Your task to perform on an android device: Go to Wikipedia Image 0: 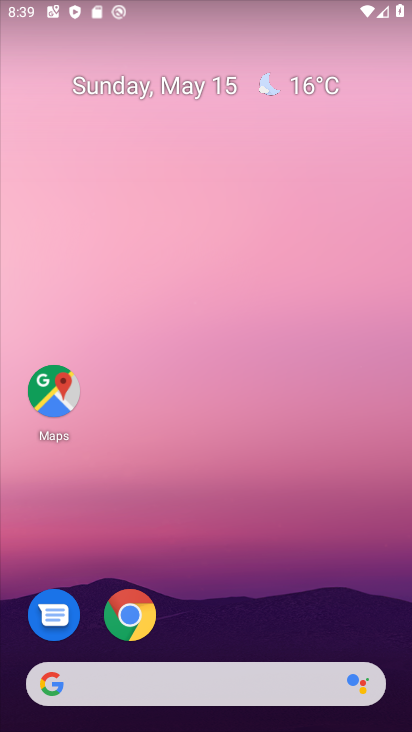
Step 0: click (137, 606)
Your task to perform on an android device: Go to Wikipedia Image 1: 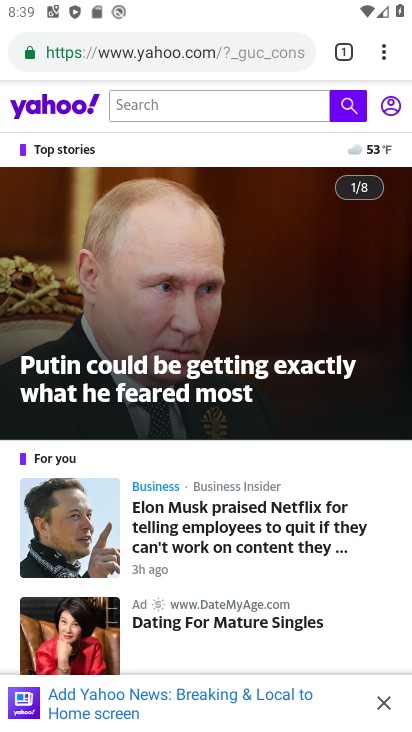
Step 1: click (351, 53)
Your task to perform on an android device: Go to Wikipedia Image 2: 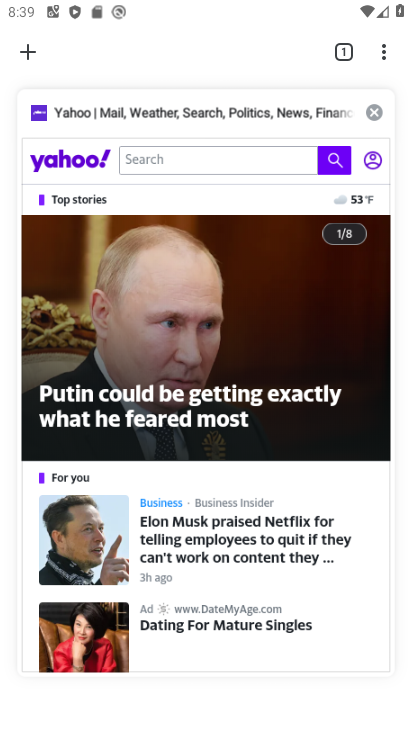
Step 2: click (369, 106)
Your task to perform on an android device: Go to Wikipedia Image 3: 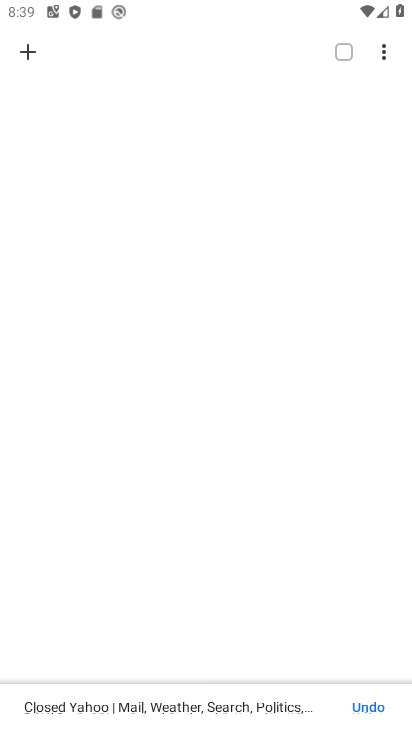
Step 3: click (31, 44)
Your task to perform on an android device: Go to Wikipedia Image 4: 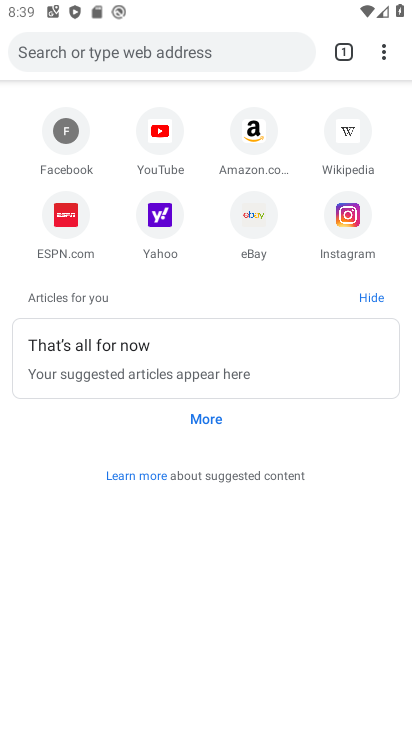
Step 4: click (329, 119)
Your task to perform on an android device: Go to Wikipedia Image 5: 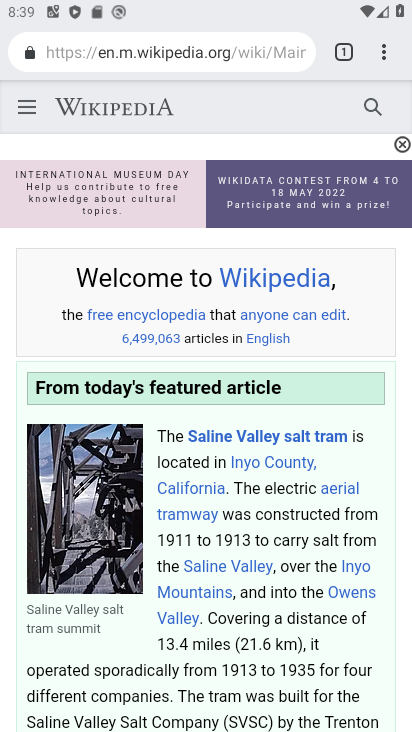
Step 5: task complete